Your task to perform on an android device: refresh tabs in the chrome app Image 0: 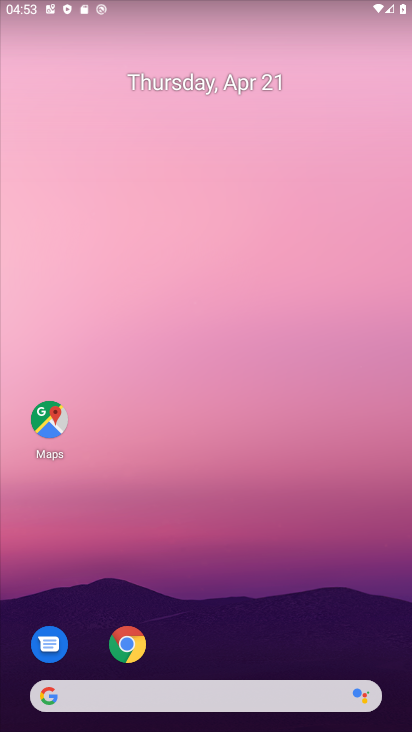
Step 0: drag from (261, 618) to (344, 176)
Your task to perform on an android device: refresh tabs in the chrome app Image 1: 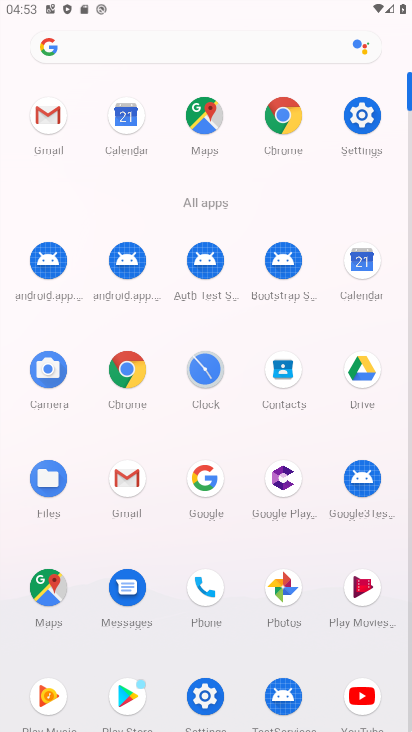
Step 1: click (131, 375)
Your task to perform on an android device: refresh tabs in the chrome app Image 2: 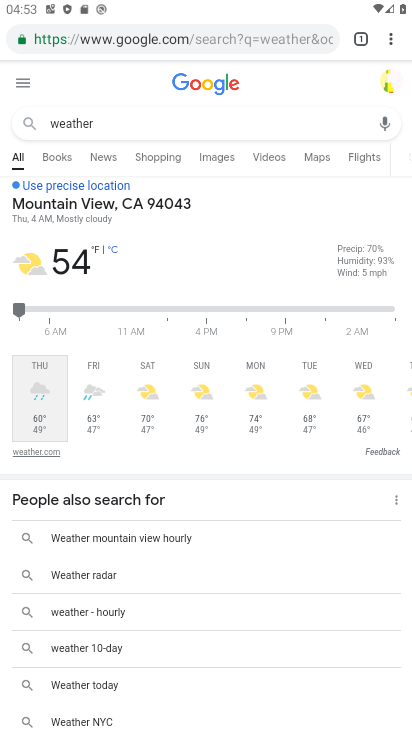
Step 2: click (393, 33)
Your task to perform on an android device: refresh tabs in the chrome app Image 3: 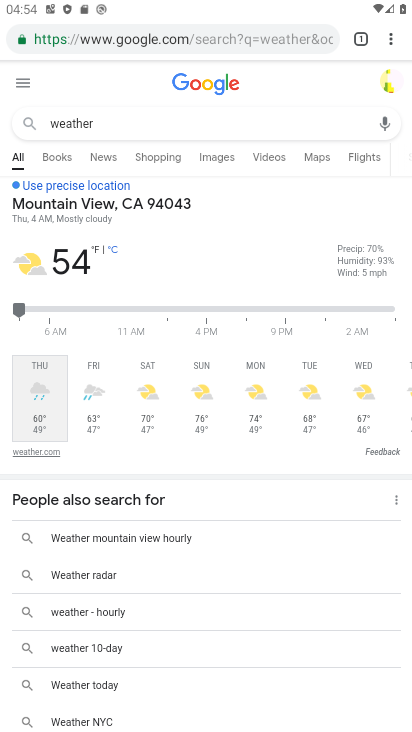
Step 3: task complete